Your task to perform on an android device: Go to network settings Image 0: 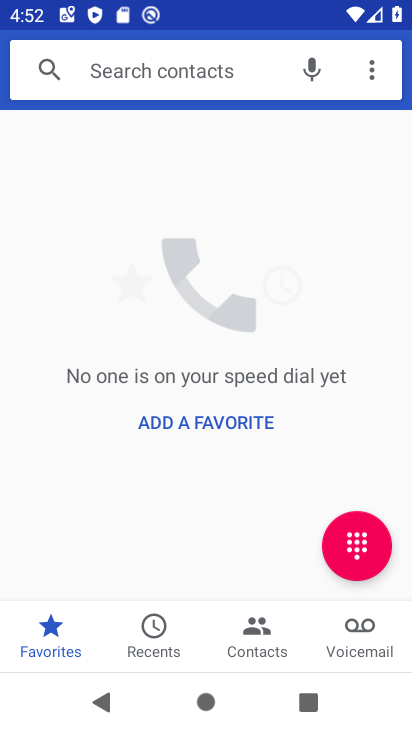
Step 0: press home button
Your task to perform on an android device: Go to network settings Image 1: 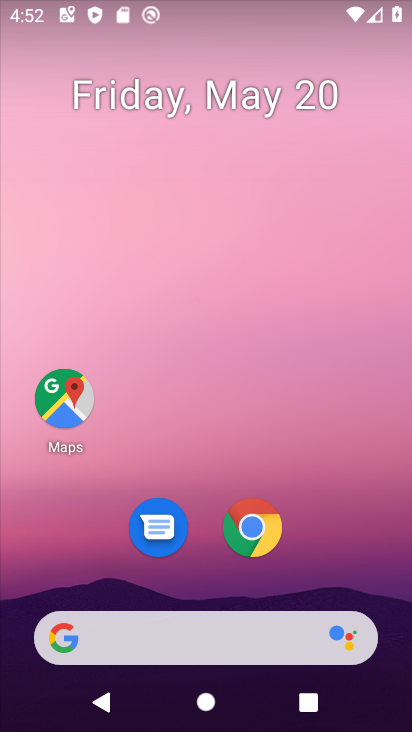
Step 1: drag from (147, 611) to (196, 180)
Your task to perform on an android device: Go to network settings Image 2: 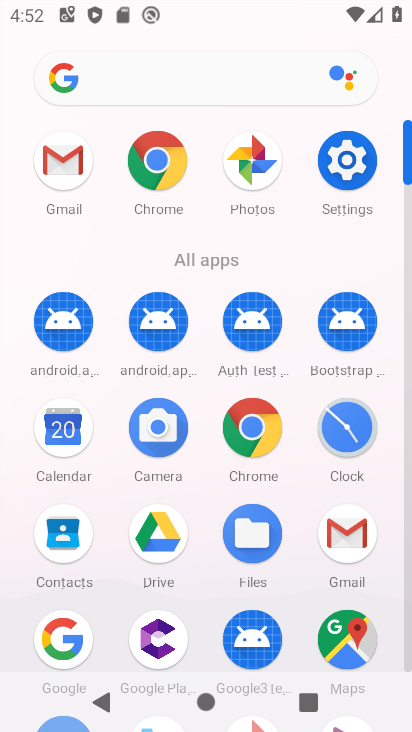
Step 2: click (351, 174)
Your task to perform on an android device: Go to network settings Image 3: 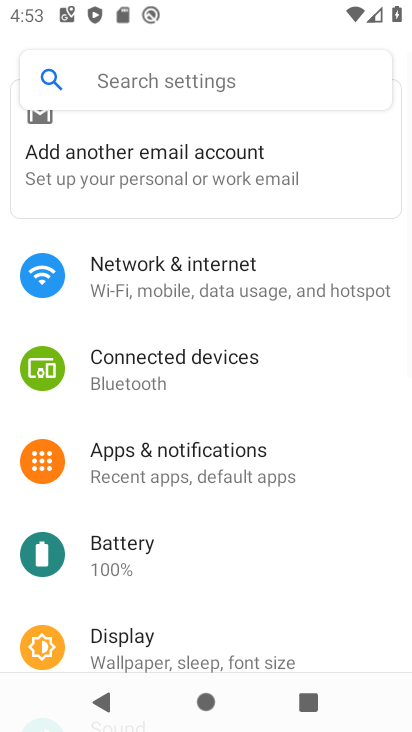
Step 3: click (201, 276)
Your task to perform on an android device: Go to network settings Image 4: 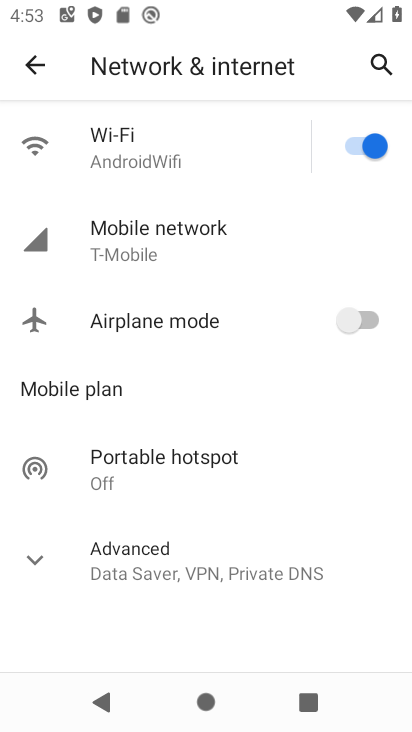
Step 4: click (137, 239)
Your task to perform on an android device: Go to network settings Image 5: 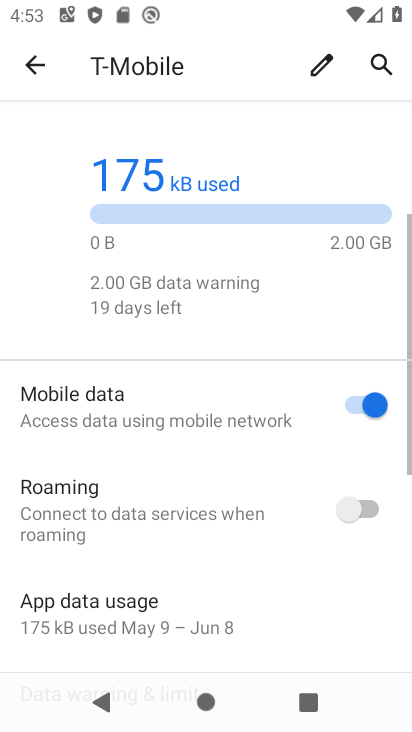
Step 5: task complete